Your task to perform on an android device: toggle notification dots Image 0: 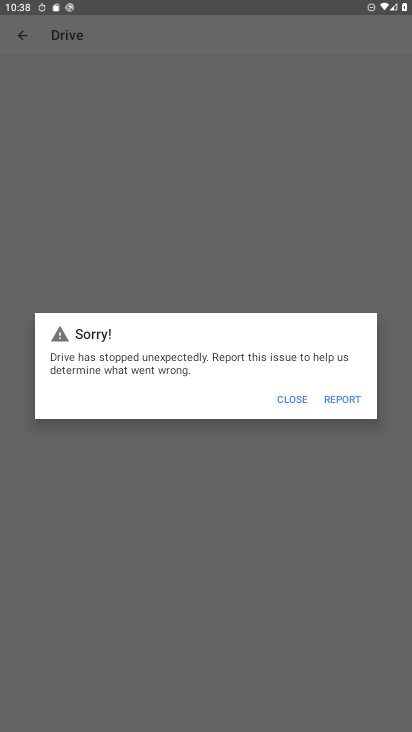
Step 0: press home button
Your task to perform on an android device: toggle notification dots Image 1: 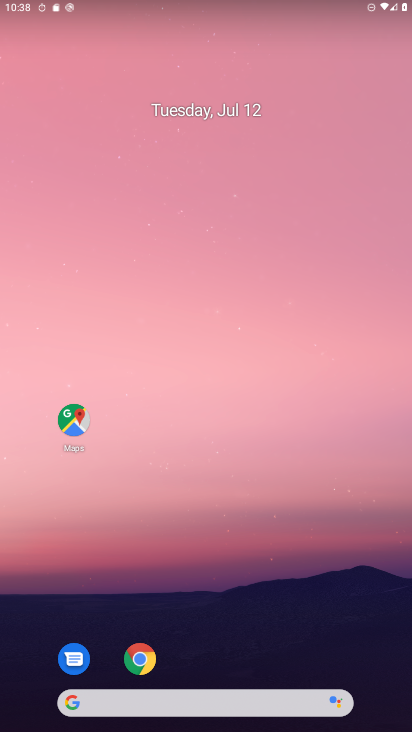
Step 1: drag from (255, 719) to (237, 281)
Your task to perform on an android device: toggle notification dots Image 2: 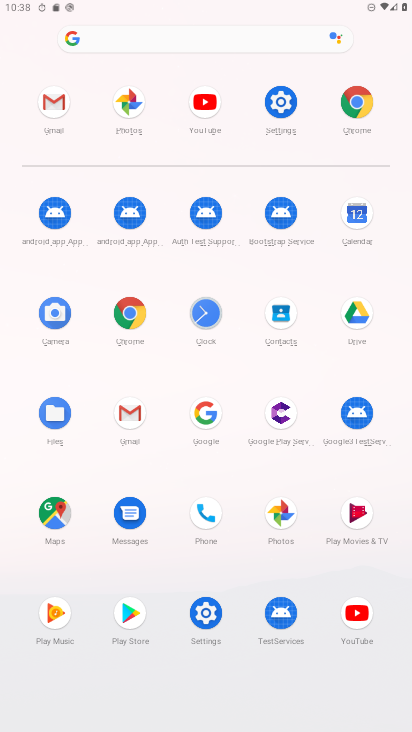
Step 2: click (285, 100)
Your task to perform on an android device: toggle notification dots Image 3: 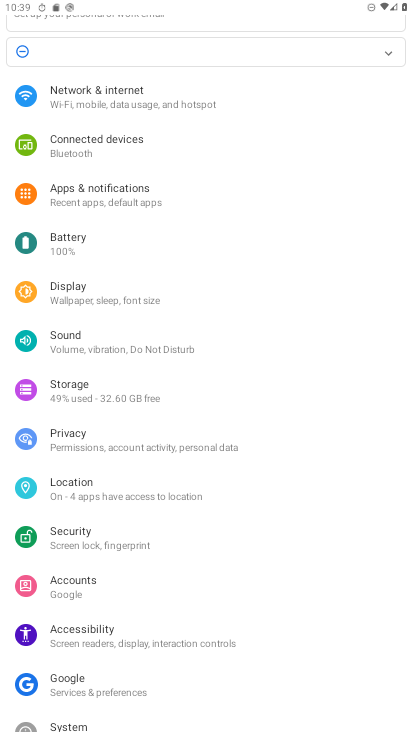
Step 3: click (99, 190)
Your task to perform on an android device: toggle notification dots Image 4: 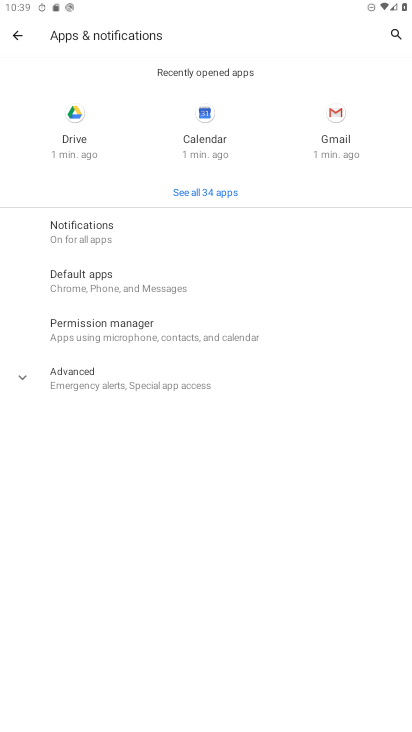
Step 4: click (83, 232)
Your task to perform on an android device: toggle notification dots Image 5: 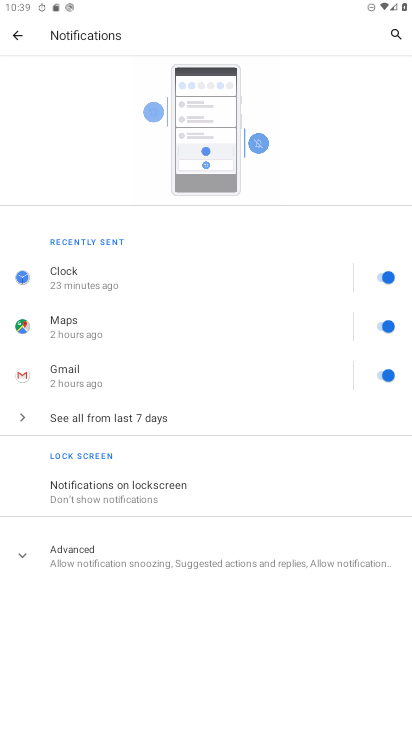
Step 5: click (74, 553)
Your task to perform on an android device: toggle notification dots Image 6: 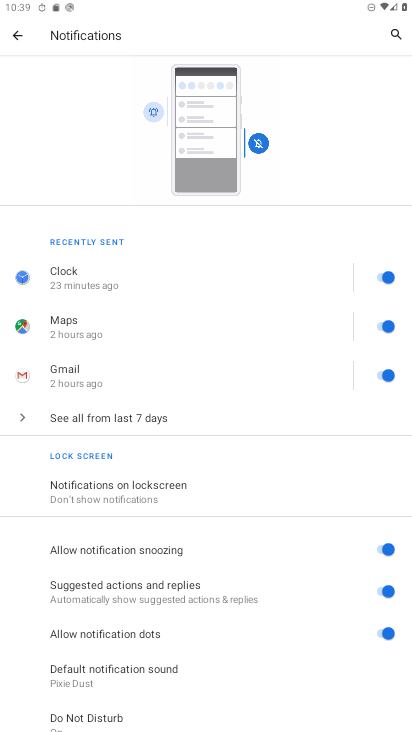
Step 6: click (391, 632)
Your task to perform on an android device: toggle notification dots Image 7: 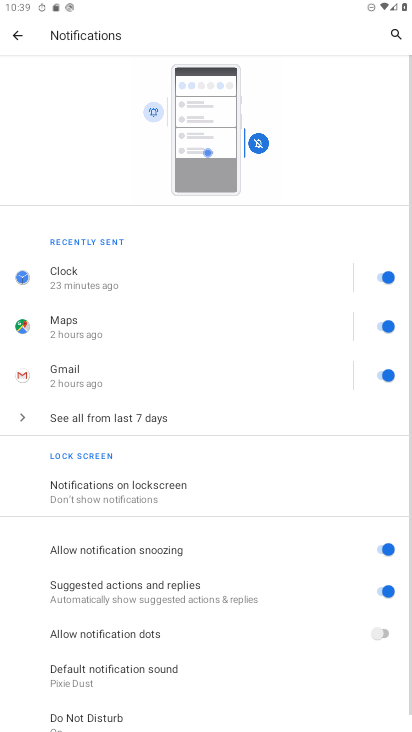
Step 7: task complete